Your task to perform on an android device: turn pop-ups off in chrome Image 0: 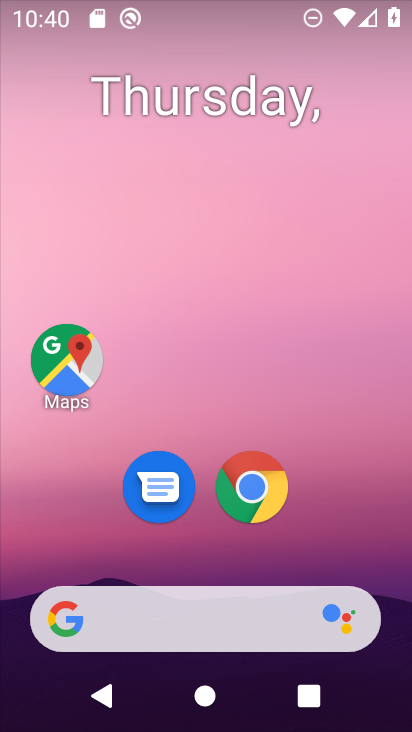
Step 0: click (257, 495)
Your task to perform on an android device: turn pop-ups off in chrome Image 1: 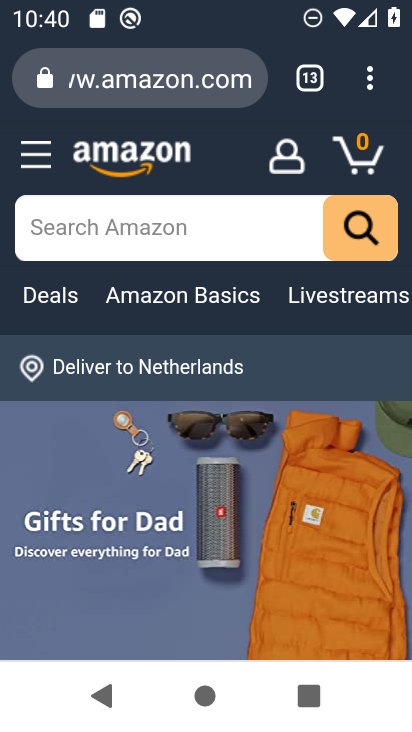
Step 1: click (373, 82)
Your task to perform on an android device: turn pop-ups off in chrome Image 2: 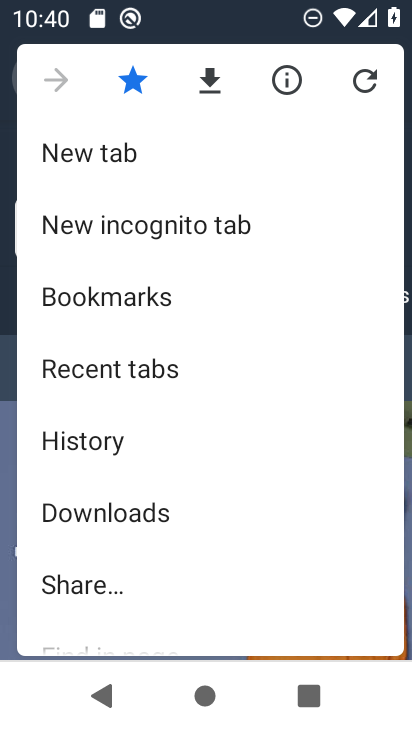
Step 2: drag from (186, 505) to (144, 198)
Your task to perform on an android device: turn pop-ups off in chrome Image 3: 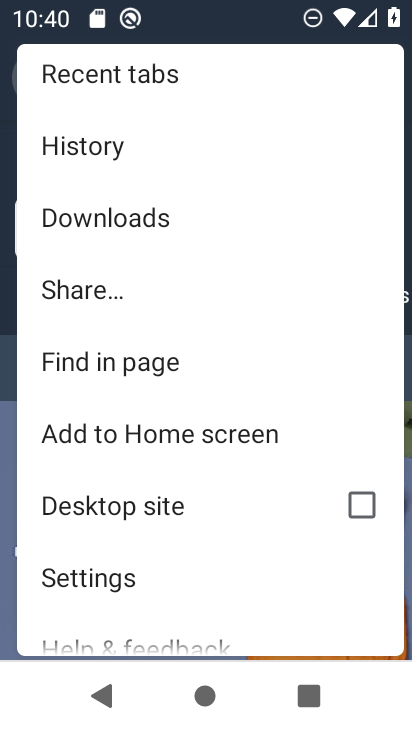
Step 3: click (102, 582)
Your task to perform on an android device: turn pop-ups off in chrome Image 4: 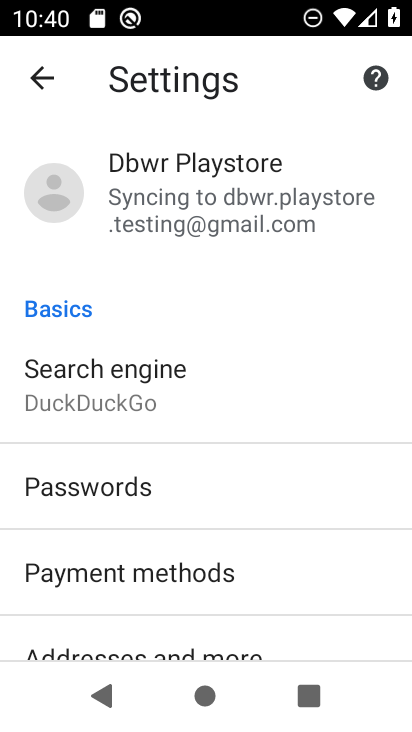
Step 4: drag from (120, 623) to (255, 190)
Your task to perform on an android device: turn pop-ups off in chrome Image 5: 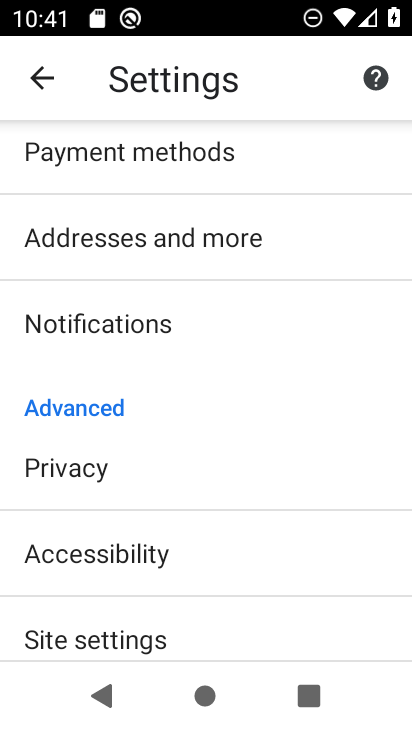
Step 5: click (123, 640)
Your task to perform on an android device: turn pop-ups off in chrome Image 6: 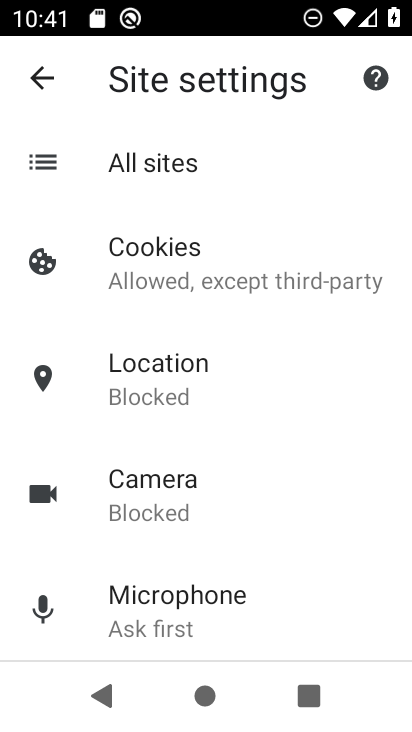
Step 6: drag from (178, 603) to (206, 202)
Your task to perform on an android device: turn pop-ups off in chrome Image 7: 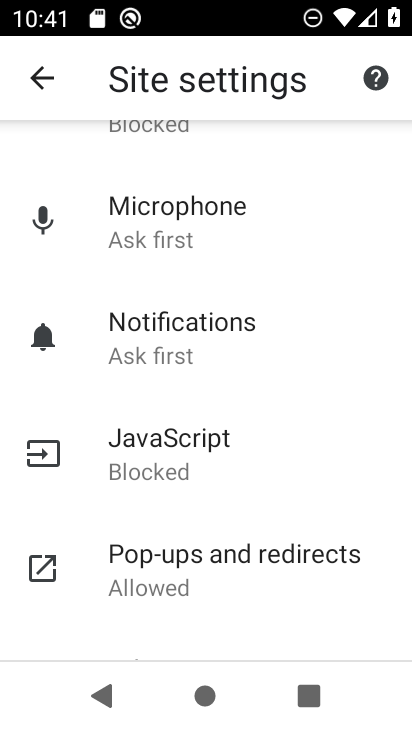
Step 7: click (153, 574)
Your task to perform on an android device: turn pop-ups off in chrome Image 8: 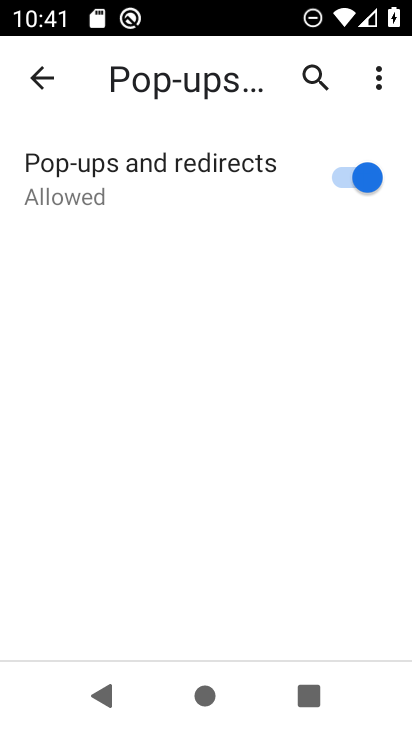
Step 8: click (365, 177)
Your task to perform on an android device: turn pop-ups off in chrome Image 9: 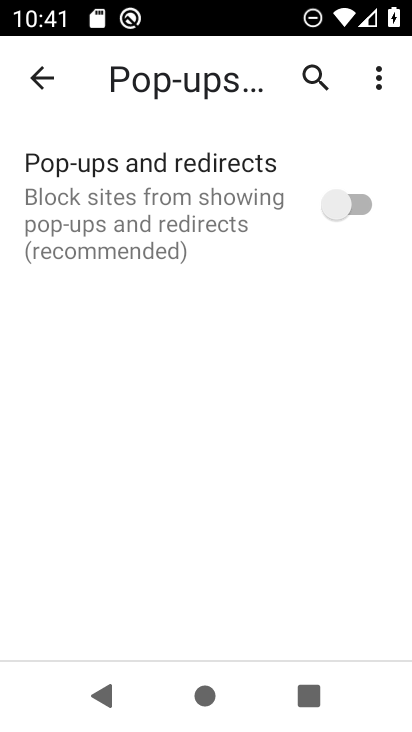
Step 9: task complete